Your task to perform on an android device: toggle pop-ups in chrome Image 0: 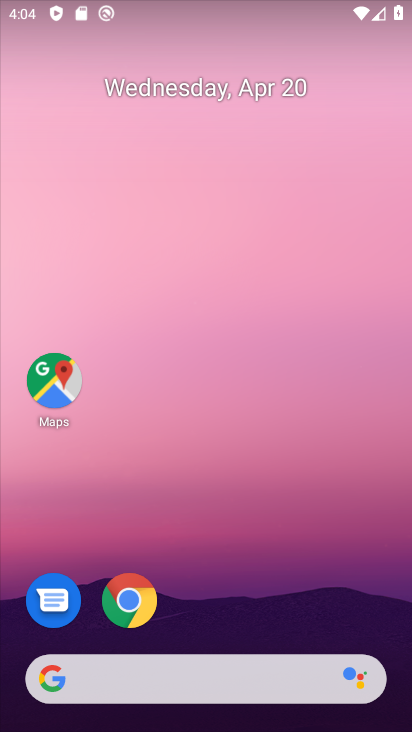
Step 0: drag from (209, 514) to (275, 185)
Your task to perform on an android device: toggle pop-ups in chrome Image 1: 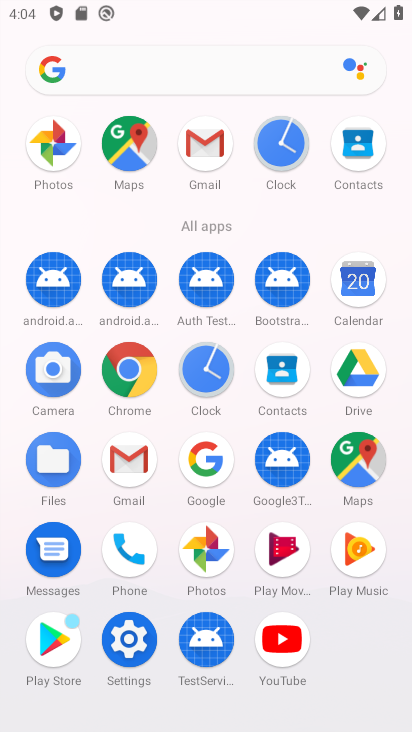
Step 1: click (130, 392)
Your task to perform on an android device: toggle pop-ups in chrome Image 2: 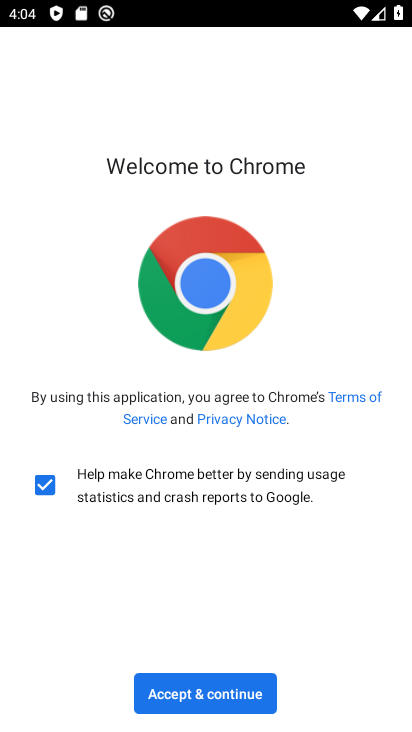
Step 2: click (216, 696)
Your task to perform on an android device: toggle pop-ups in chrome Image 3: 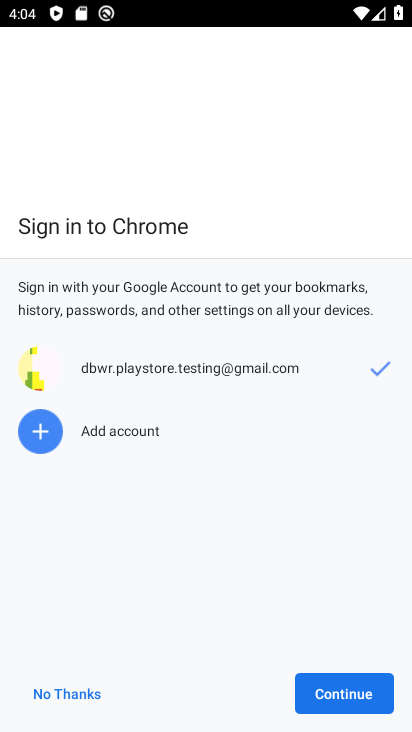
Step 3: click (358, 692)
Your task to perform on an android device: toggle pop-ups in chrome Image 4: 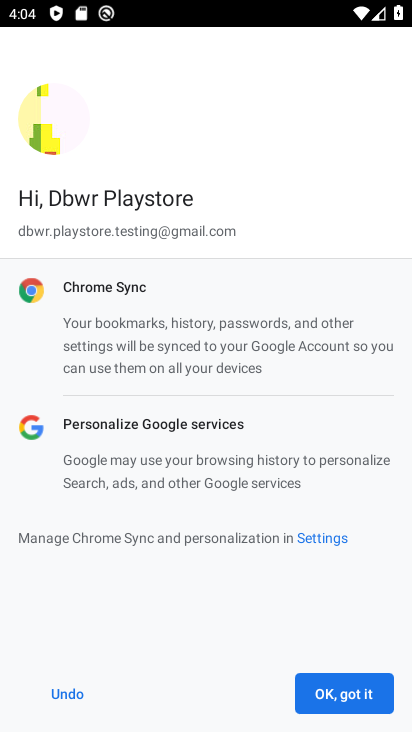
Step 4: click (344, 697)
Your task to perform on an android device: toggle pop-ups in chrome Image 5: 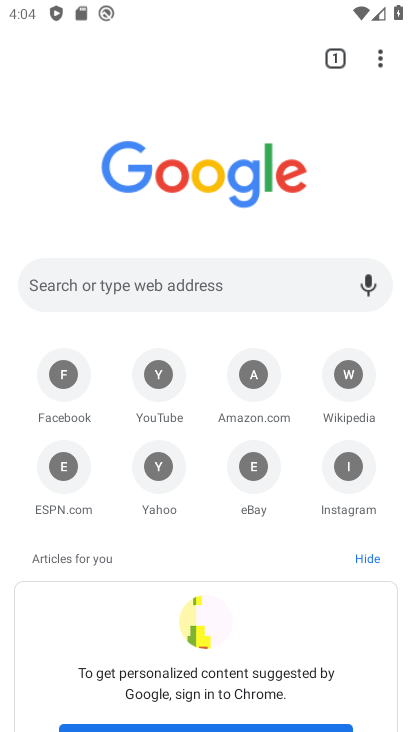
Step 5: drag from (374, 53) to (268, 506)
Your task to perform on an android device: toggle pop-ups in chrome Image 6: 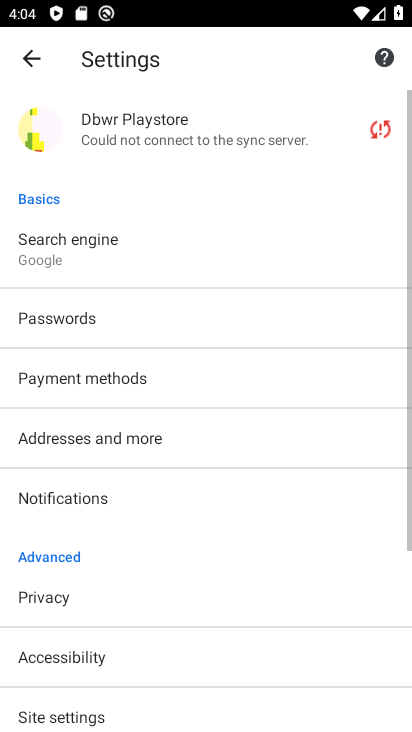
Step 6: drag from (201, 639) to (258, 315)
Your task to perform on an android device: toggle pop-ups in chrome Image 7: 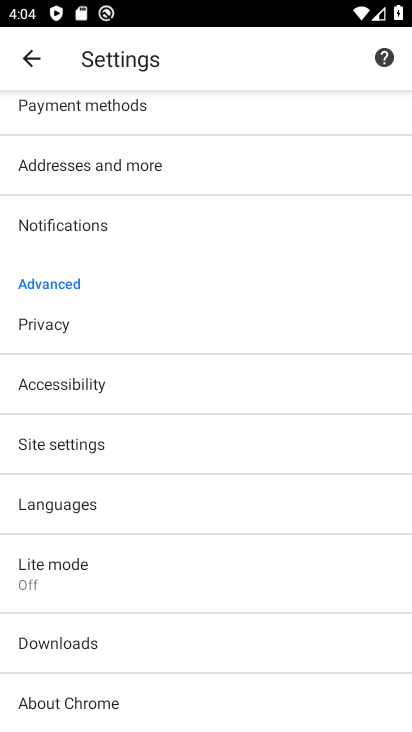
Step 7: drag from (165, 586) to (194, 434)
Your task to perform on an android device: toggle pop-ups in chrome Image 8: 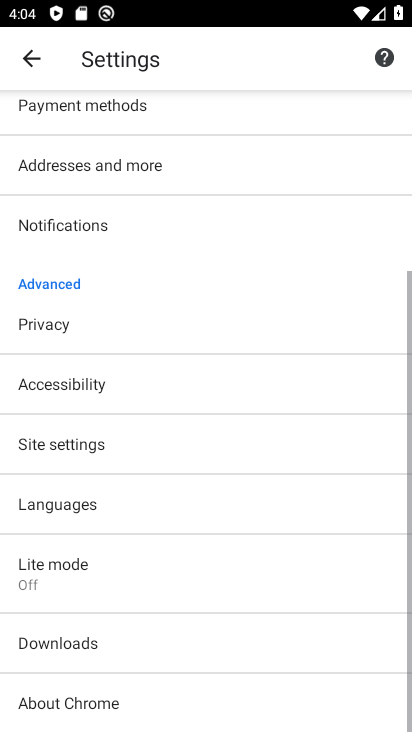
Step 8: click (147, 437)
Your task to perform on an android device: toggle pop-ups in chrome Image 9: 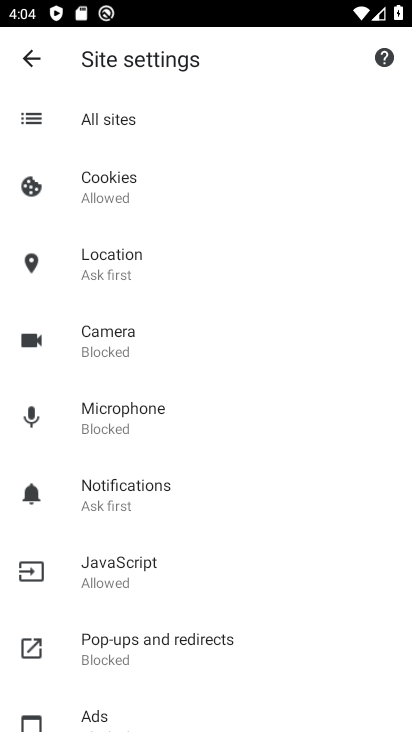
Step 9: click (224, 651)
Your task to perform on an android device: toggle pop-ups in chrome Image 10: 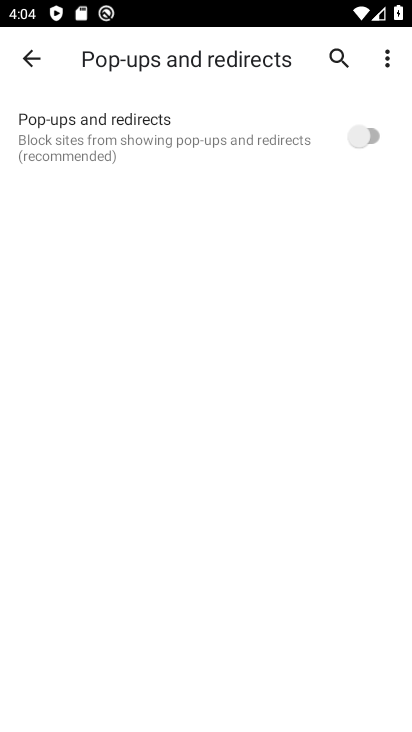
Step 10: click (381, 131)
Your task to perform on an android device: toggle pop-ups in chrome Image 11: 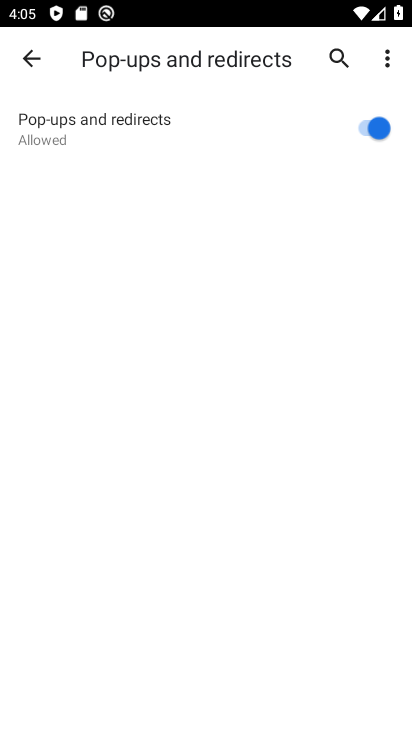
Step 11: task complete